Your task to perform on an android device: toggle translation in the chrome app Image 0: 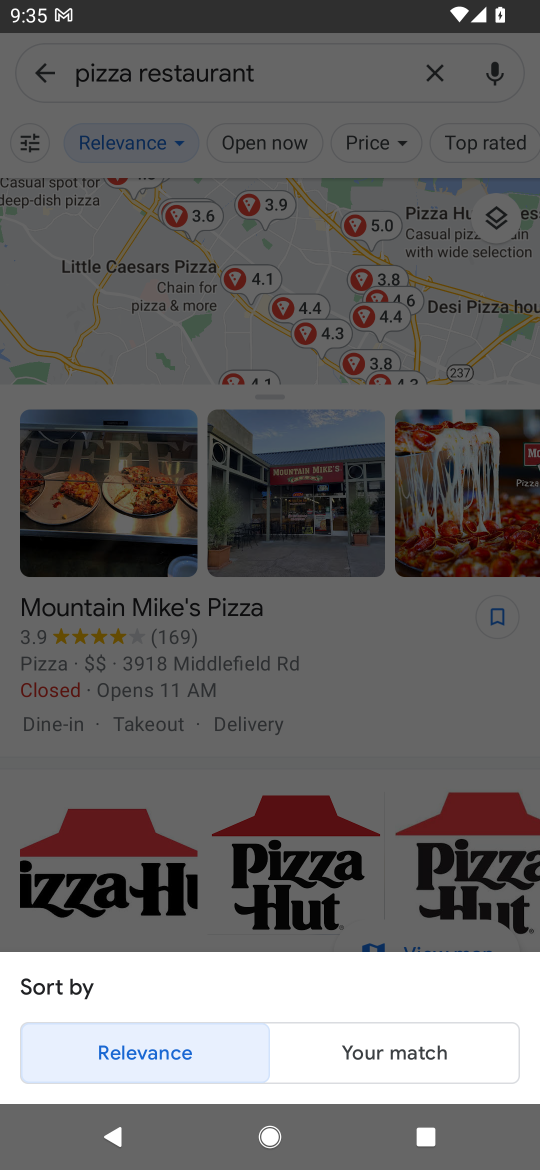
Step 0: press home button
Your task to perform on an android device: toggle translation in the chrome app Image 1: 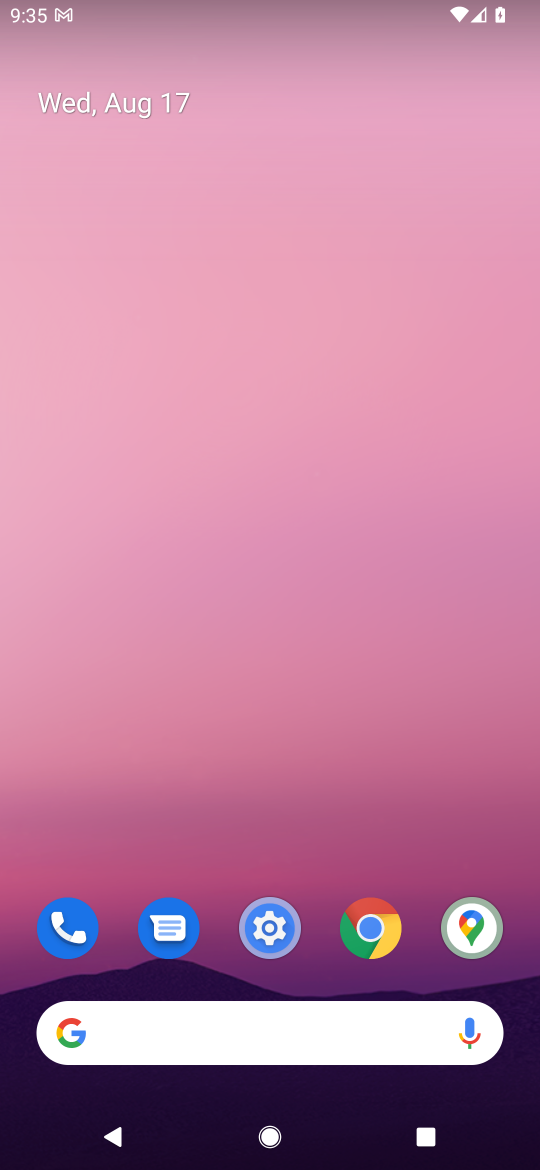
Step 1: click (386, 947)
Your task to perform on an android device: toggle translation in the chrome app Image 2: 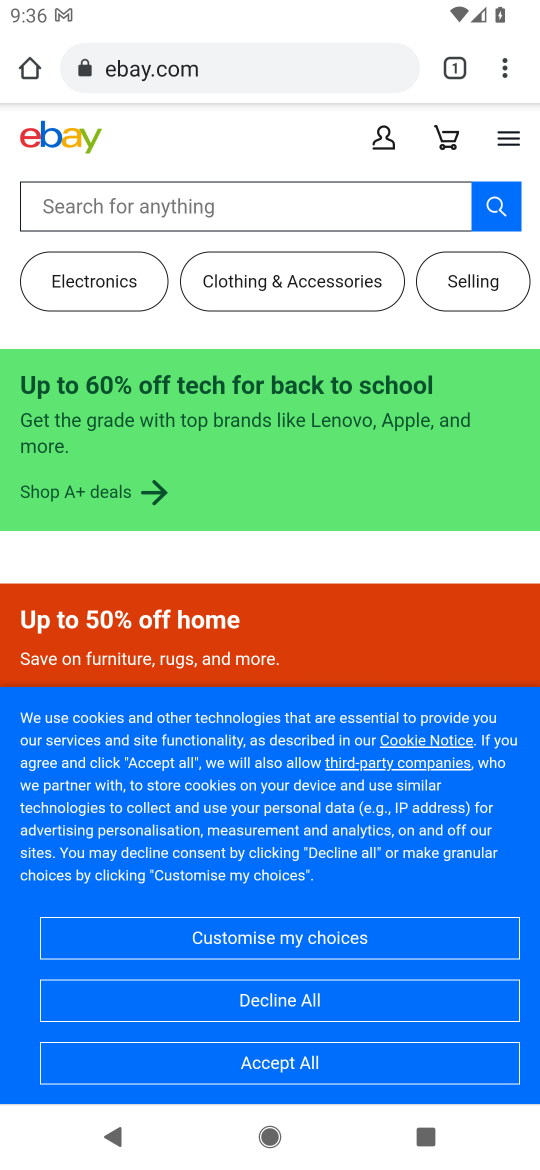
Step 2: click (499, 72)
Your task to perform on an android device: toggle translation in the chrome app Image 3: 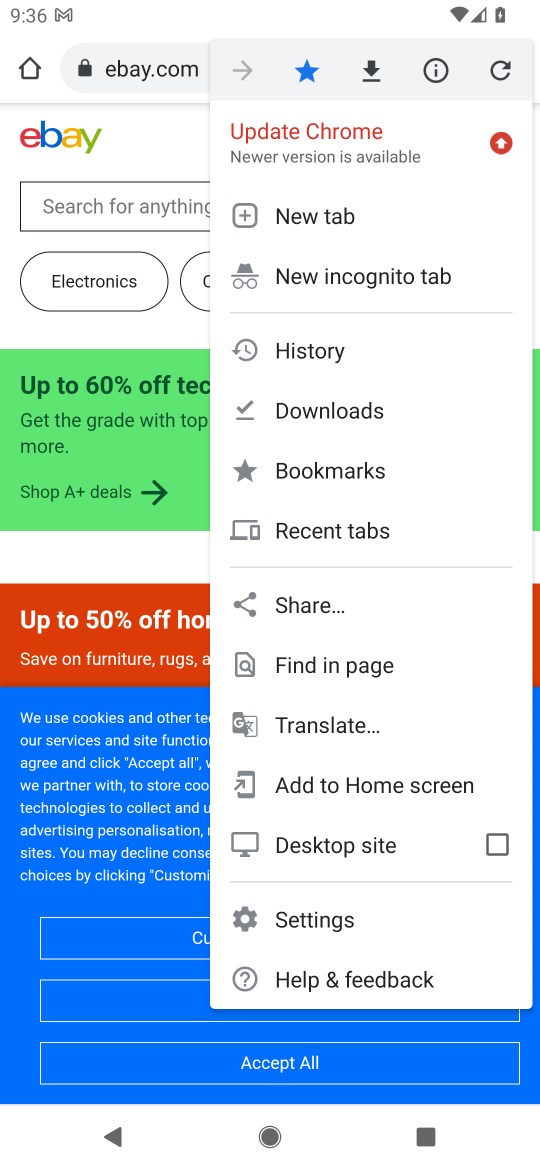
Step 3: click (306, 920)
Your task to perform on an android device: toggle translation in the chrome app Image 4: 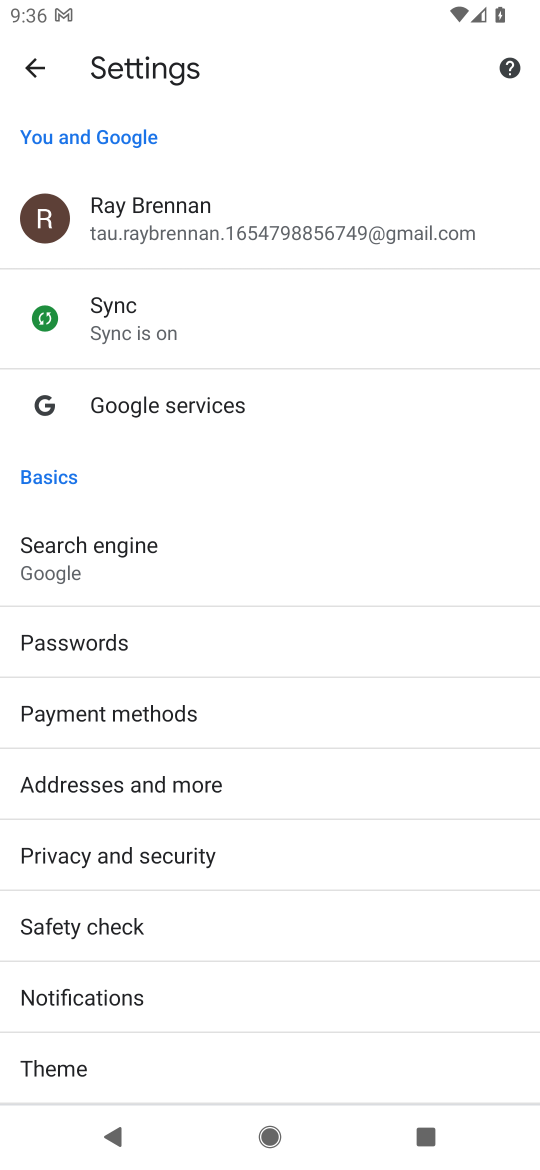
Step 4: drag from (258, 965) to (136, 596)
Your task to perform on an android device: toggle translation in the chrome app Image 5: 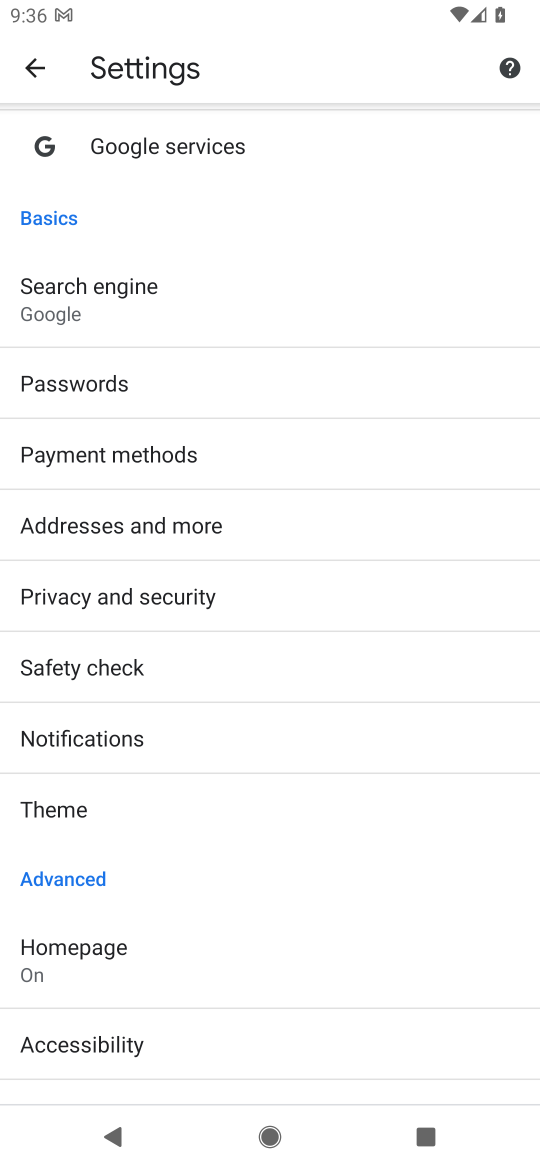
Step 5: drag from (124, 815) to (164, 892)
Your task to perform on an android device: toggle translation in the chrome app Image 6: 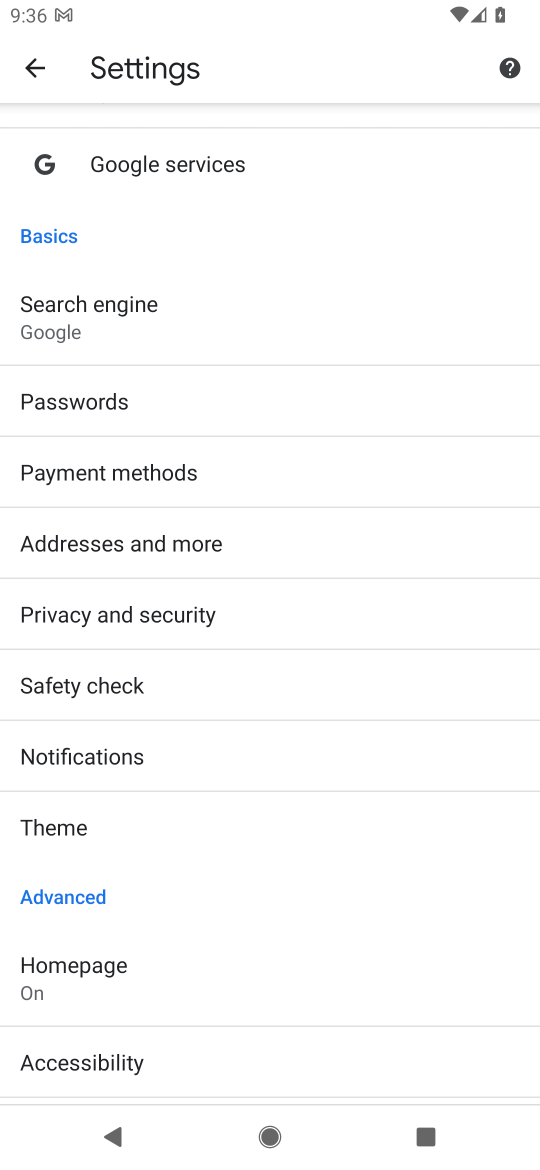
Step 6: drag from (202, 919) to (88, 529)
Your task to perform on an android device: toggle translation in the chrome app Image 7: 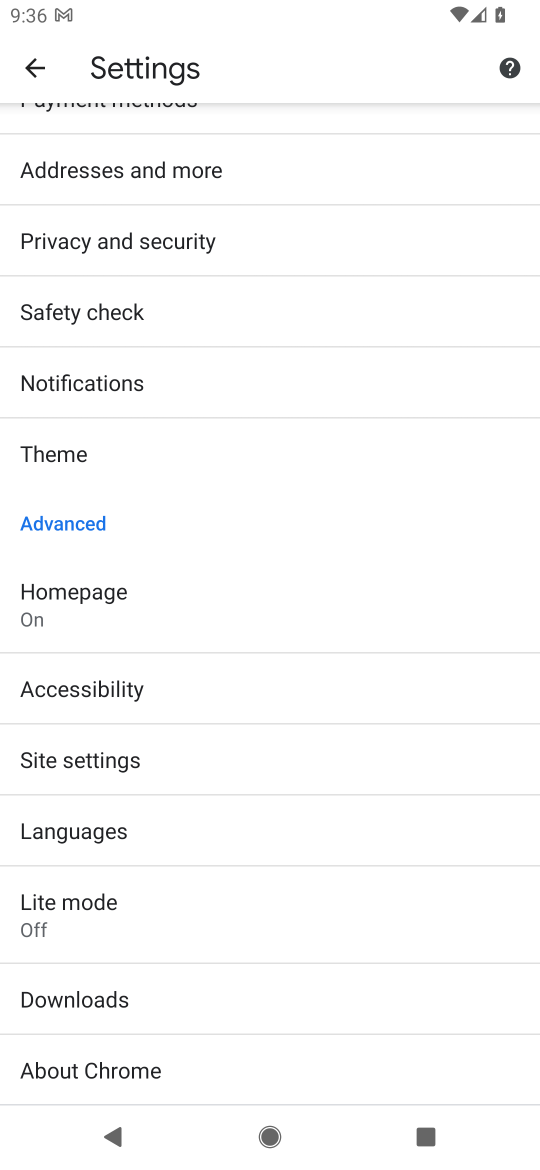
Step 7: click (158, 825)
Your task to perform on an android device: toggle translation in the chrome app Image 8: 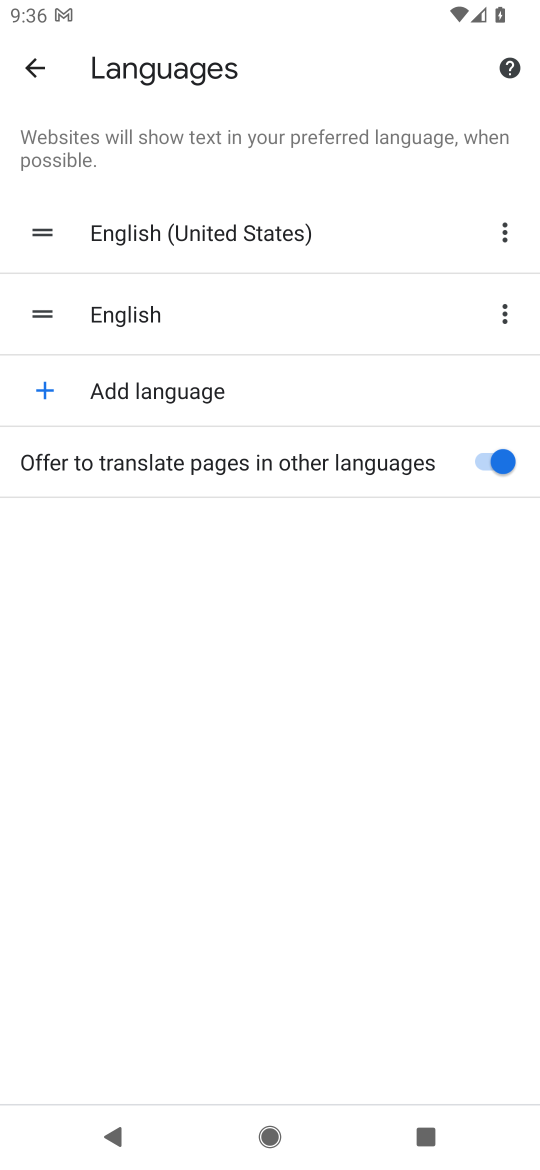
Step 8: click (498, 464)
Your task to perform on an android device: toggle translation in the chrome app Image 9: 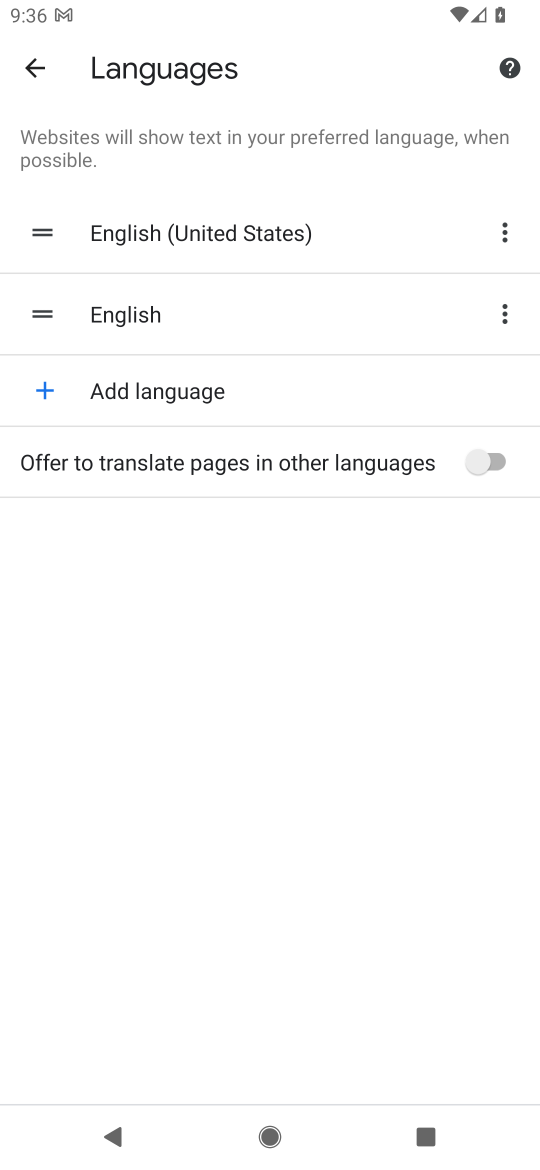
Step 9: task complete